Your task to perform on an android device: manage bookmarks in the chrome app Image 0: 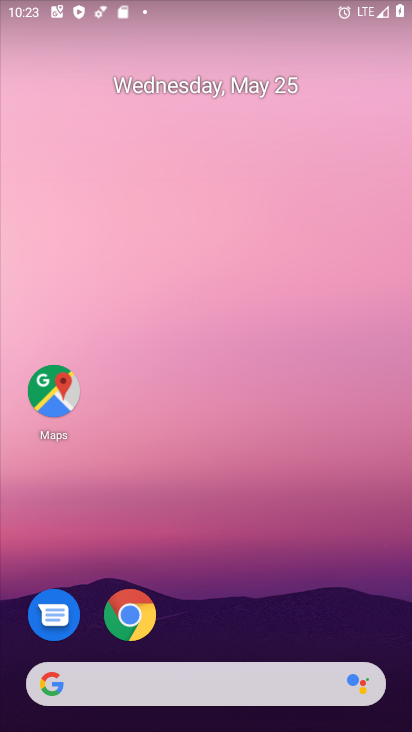
Step 0: click (124, 604)
Your task to perform on an android device: manage bookmarks in the chrome app Image 1: 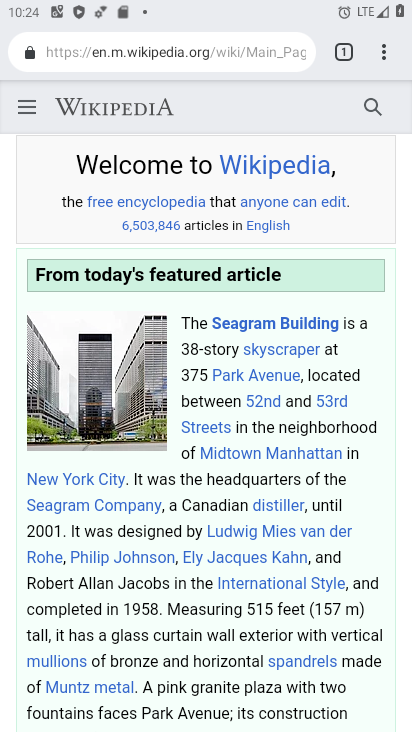
Step 1: click (382, 53)
Your task to perform on an android device: manage bookmarks in the chrome app Image 2: 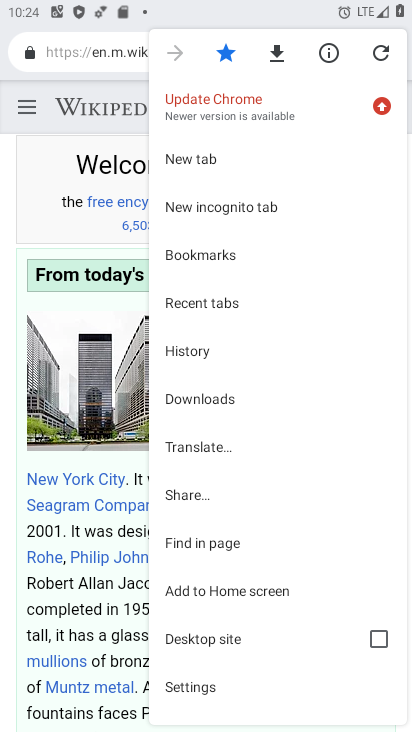
Step 2: click (219, 250)
Your task to perform on an android device: manage bookmarks in the chrome app Image 3: 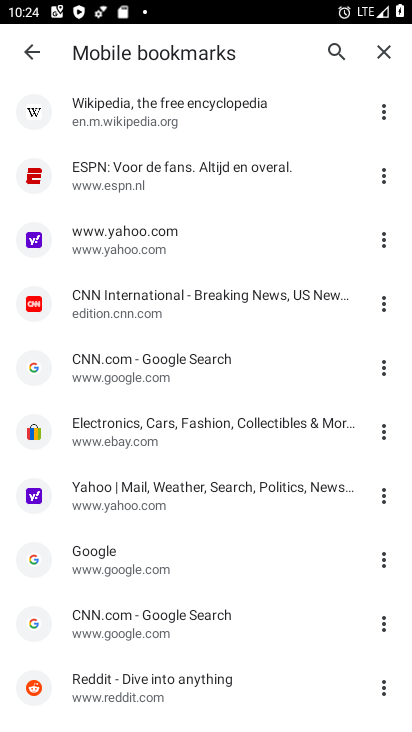
Step 3: click (377, 171)
Your task to perform on an android device: manage bookmarks in the chrome app Image 4: 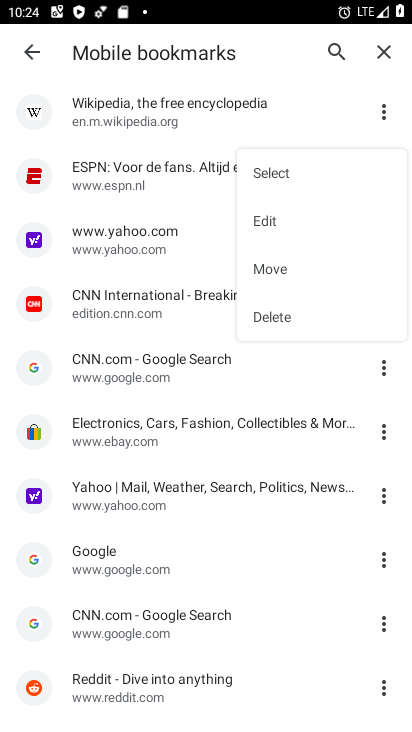
Step 4: click (306, 215)
Your task to perform on an android device: manage bookmarks in the chrome app Image 5: 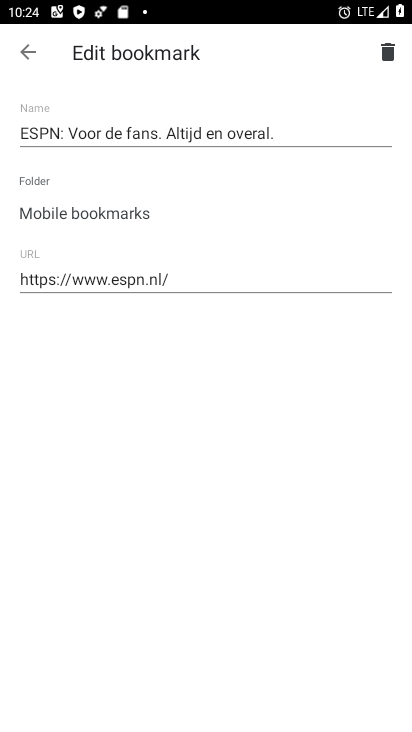
Step 5: click (23, 45)
Your task to perform on an android device: manage bookmarks in the chrome app Image 6: 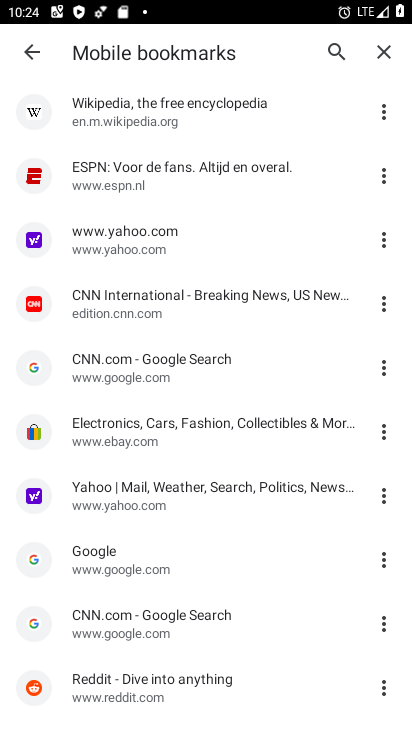
Step 6: task complete